Your task to perform on an android device: Go to Maps Image 0: 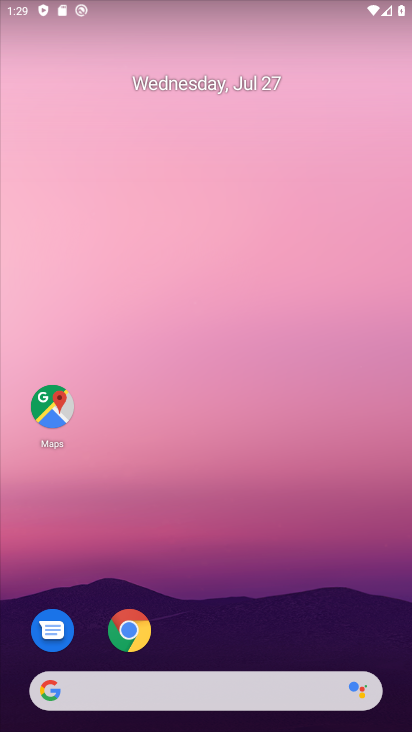
Step 0: press home button
Your task to perform on an android device: Go to Maps Image 1: 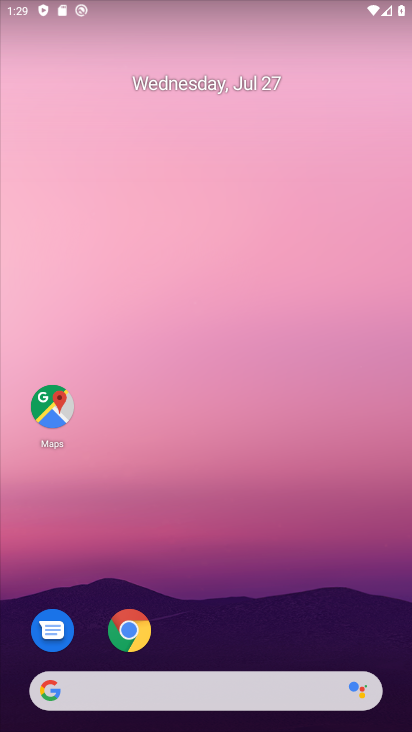
Step 1: click (50, 405)
Your task to perform on an android device: Go to Maps Image 2: 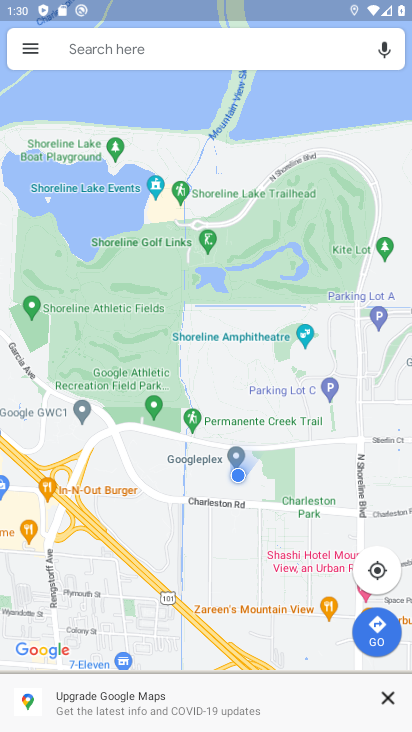
Step 2: task complete